Your task to perform on an android device: toggle priority inbox in the gmail app Image 0: 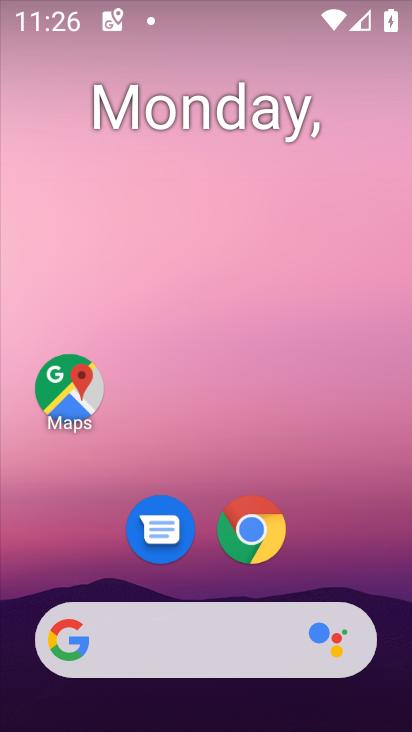
Step 0: drag from (180, 664) to (215, 196)
Your task to perform on an android device: toggle priority inbox in the gmail app Image 1: 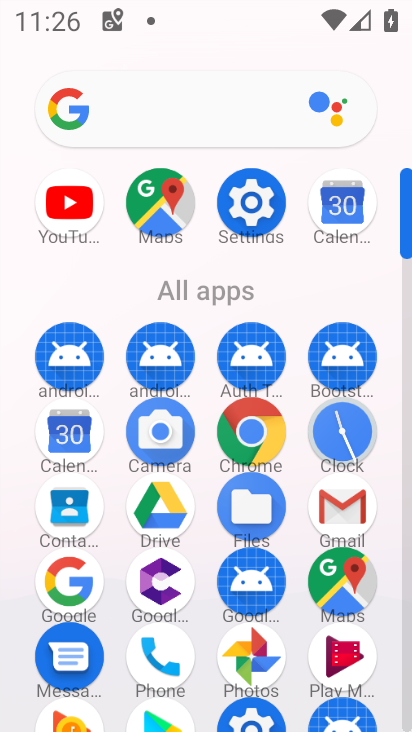
Step 1: click (337, 501)
Your task to perform on an android device: toggle priority inbox in the gmail app Image 2: 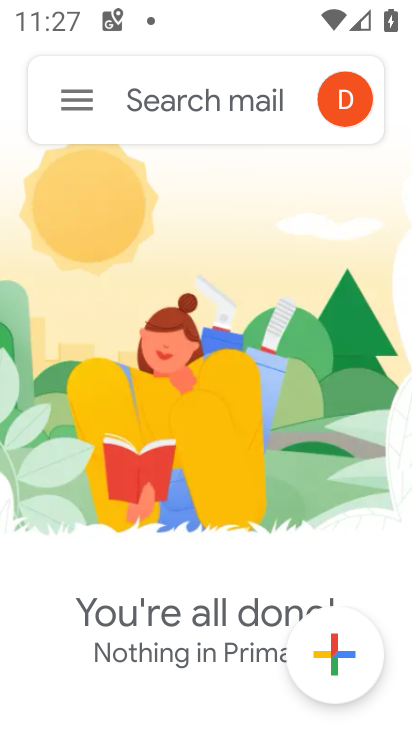
Step 2: click (87, 94)
Your task to perform on an android device: toggle priority inbox in the gmail app Image 3: 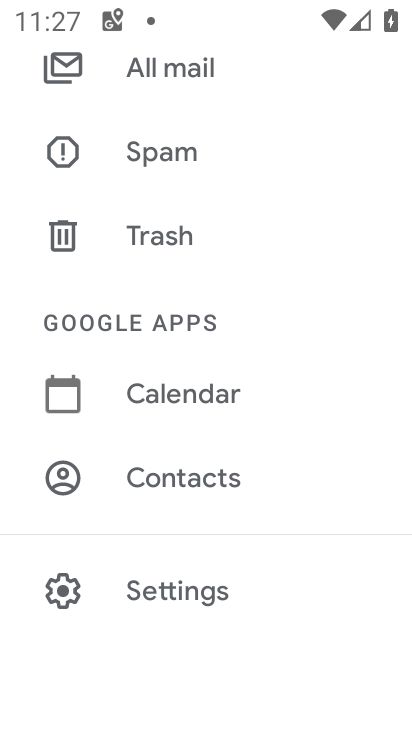
Step 3: click (163, 593)
Your task to perform on an android device: toggle priority inbox in the gmail app Image 4: 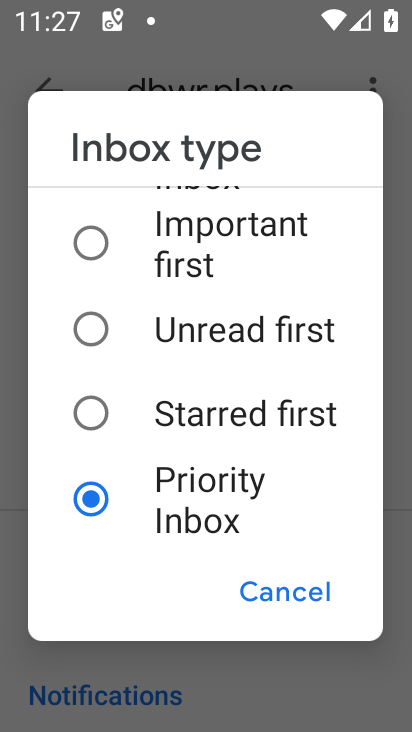
Step 4: task complete